Your task to perform on an android device: What's the weather today? Image 0: 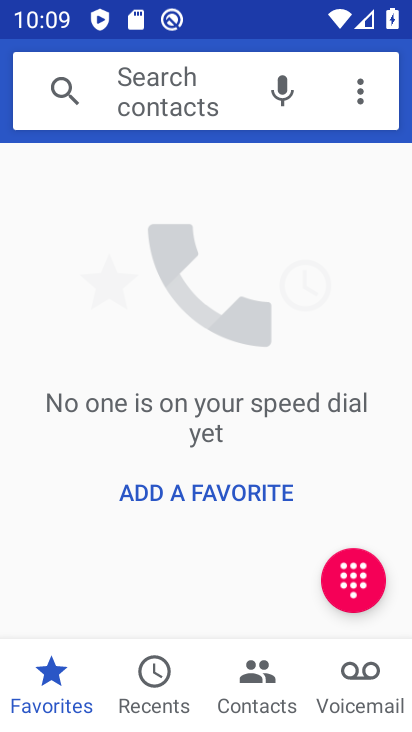
Step 0: press home button
Your task to perform on an android device: What's the weather today? Image 1: 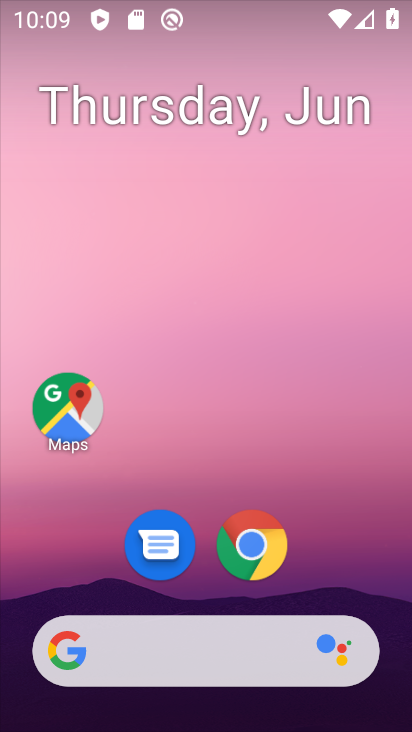
Step 1: click (223, 636)
Your task to perform on an android device: What's the weather today? Image 2: 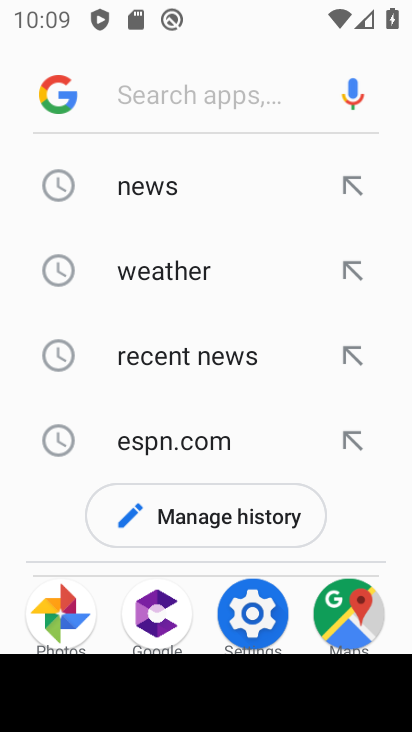
Step 2: click (180, 280)
Your task to perform on an android device: What's the weather today? Image 3: 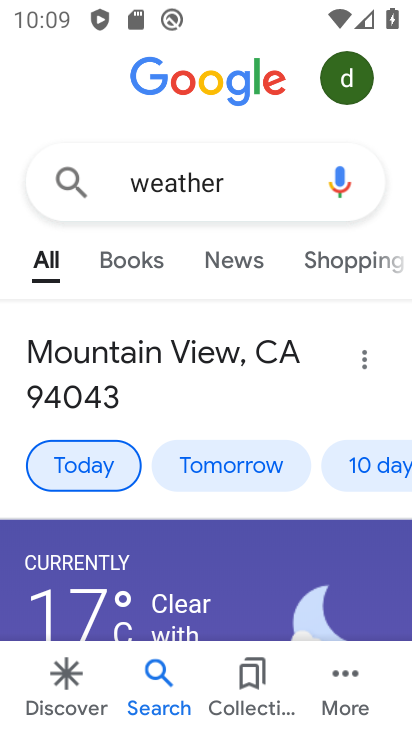
Step 3: task complete